Your task to perform on an android device: remove spam from my inbox in the gmail app Image 0: 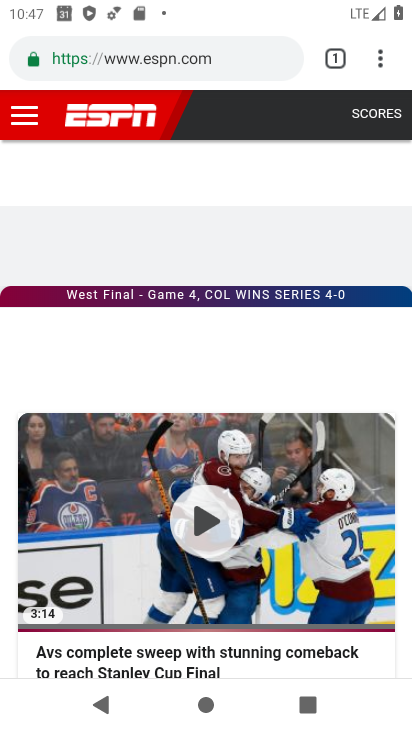
Step 0: press home button
Your task to perform on an android device: remove spam from my inbox in the gmail app Image 1: 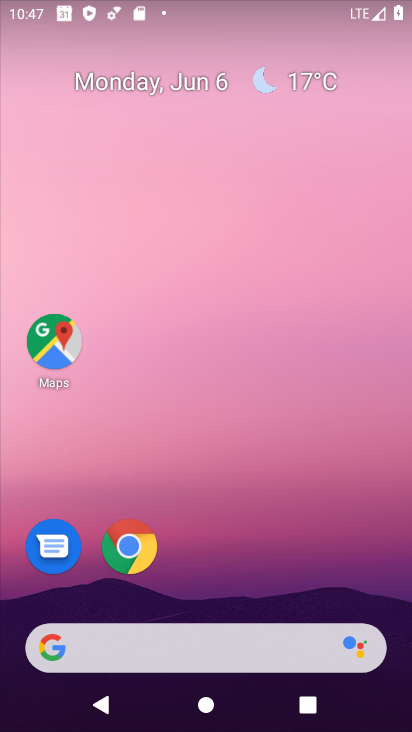
Step 1: drag from (219, 524) to (144, 42)
Your task to perform on an android device: remove spam from my inbox in the gmail app Image 2: 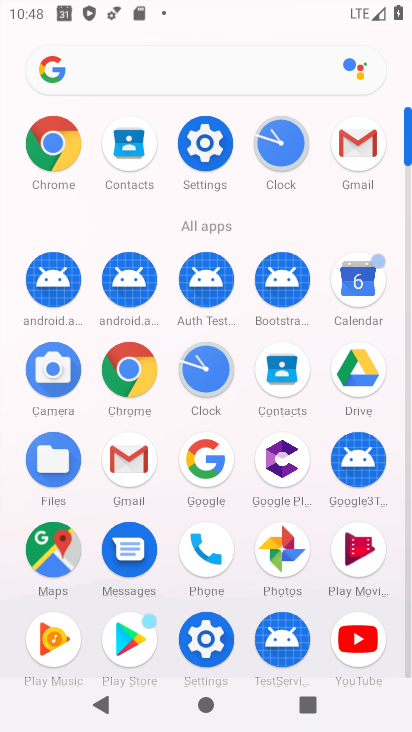
Step 2: click (355, 139)
Your task to perform on an android device: remove spam from my inbox in the gmail app Image 3: 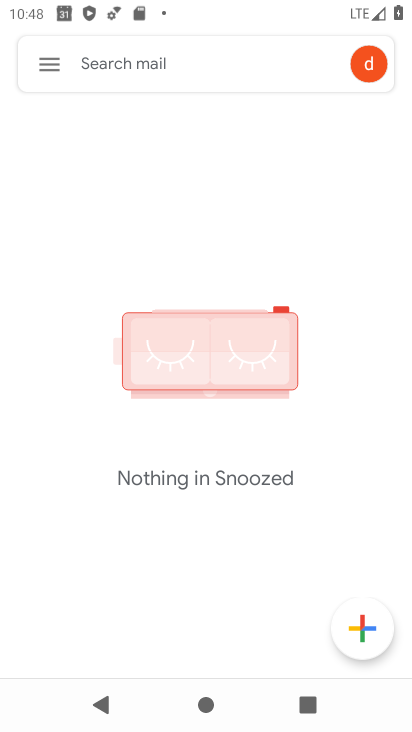
Step 3: click (49, 59)
Your task to perform on an android device: remove spam from my inbox in the gmail app Image 4: 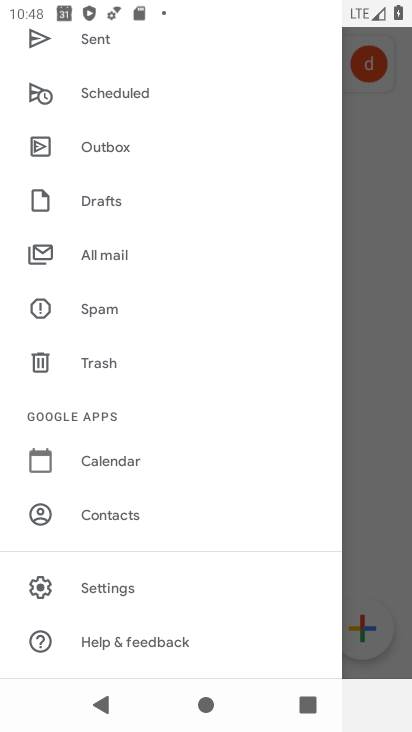
Step 4: drag from (136, 197) to (153, 694)
Your task to perform on an android device: remove spam from my inbox in the gmail app Image 5: 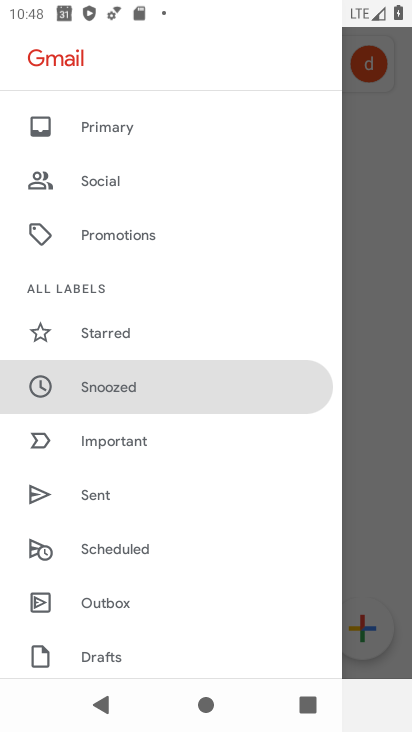
Step 5: click (109, 134)
Your task to perform on an android device: remove spam from my inbox in the gmail app Image 6: 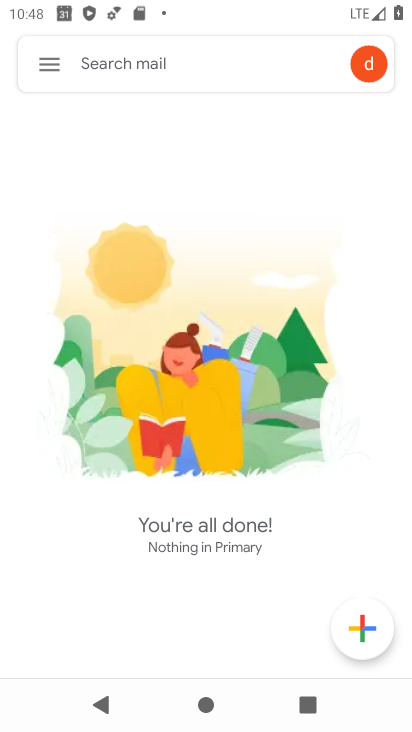
Step 6: task complete